Your task to perform on an android device: Open settings Image 0: 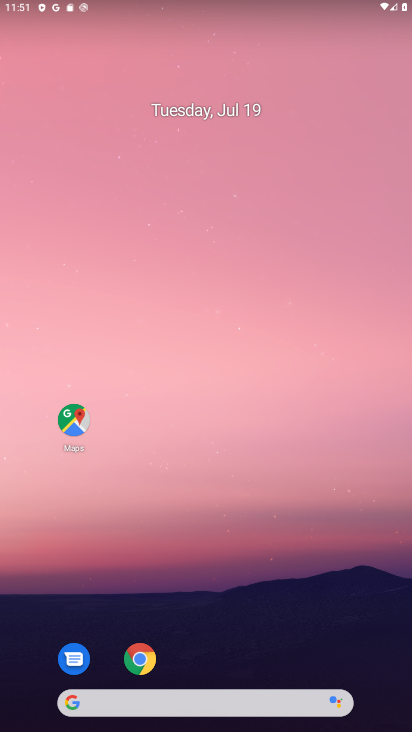
Step 0: drag from (213, 645) to (228, 38)
Your task to perform on an android device: Open settings Image 1: 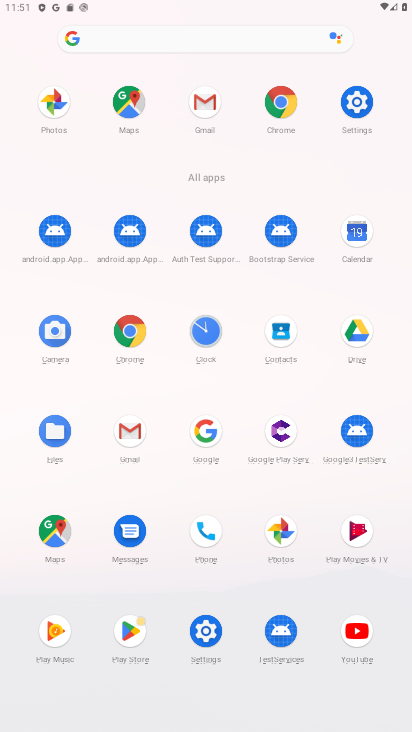
Step 1: click (356, 97)
Your task to perform on an android device: Open settings Image 2: 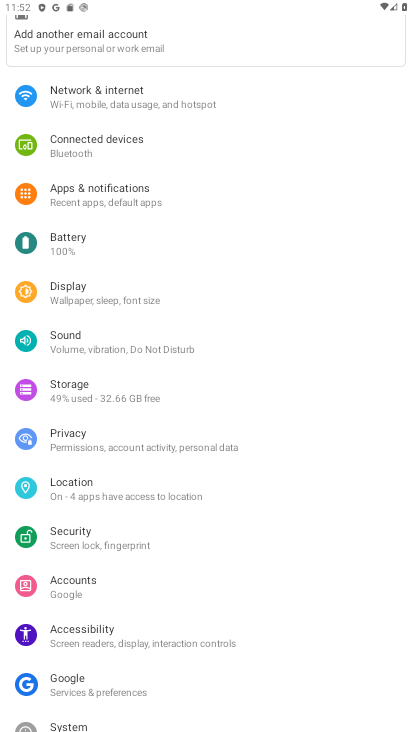
Step 2: task complete